Your task to perform on an android device: Turn on the flashlight Image 0: 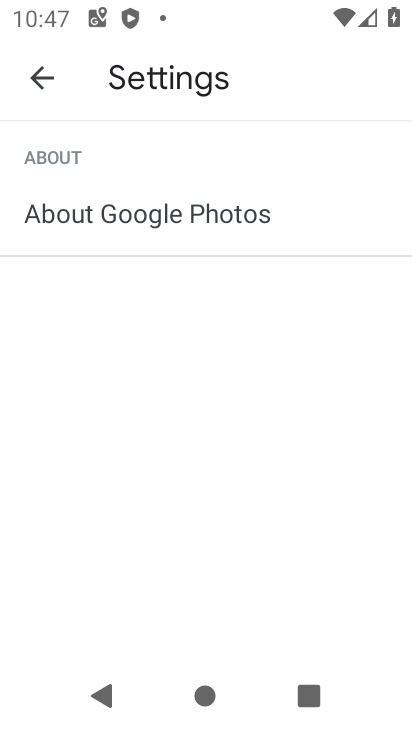
Step 0: press home button
Your task to perform on an android device: Turn on the flashlight Image 1: 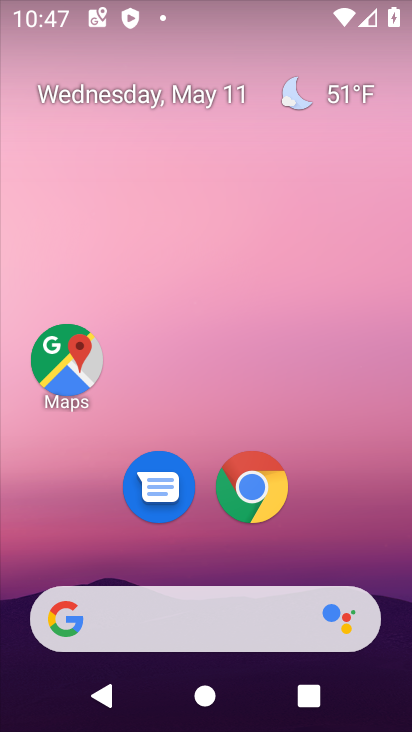
Step 1: drag from (311, 294) to (328, 14)
Your task to perform on an android device: Turn on the flashlight Image 2: 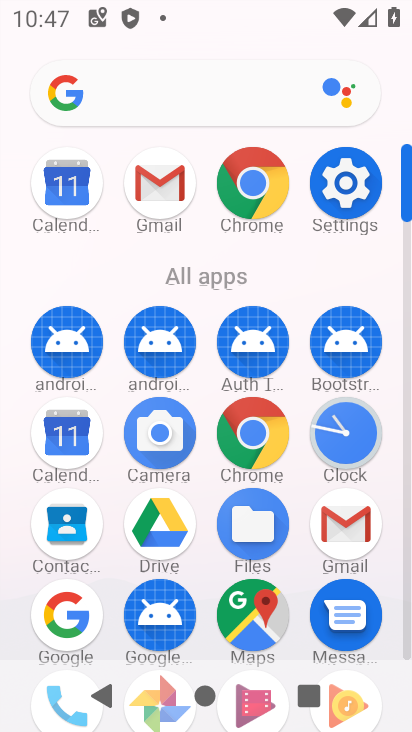
Step 2: click (337, 184)
Your task to perform on an android device: Turn on the flashlight Image 3: 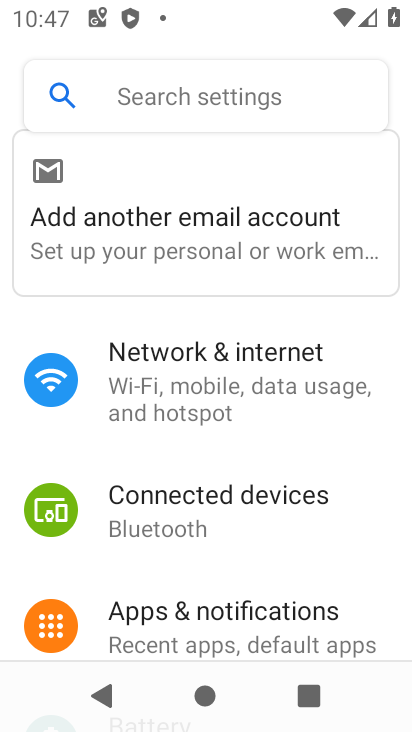
Step 3: click (183, 101)
Your task to perform on an android device: Turn on the flashlight Image 4: 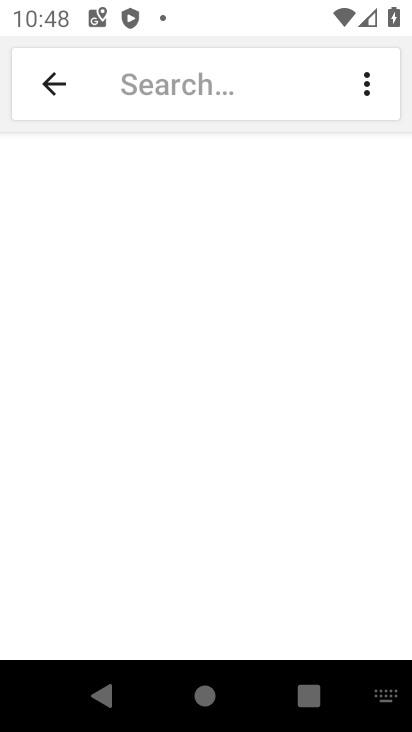
Step 4: type "flashlight"
Your task to perform on an android device: Turn on the flashlight Image 5: 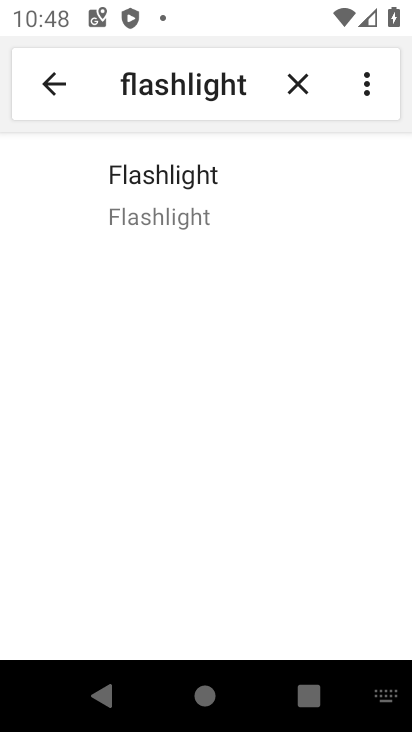
Step 5: task complete